Your task to perform on an android device: Open battery settings Image 0: 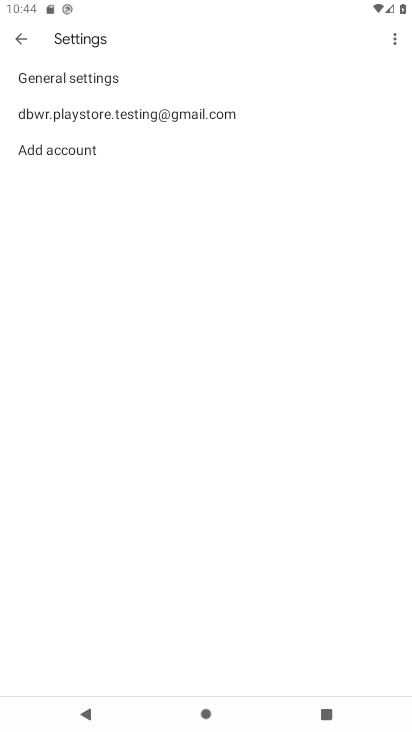
Step 0: press home button
Your task to perform on an android device: Open battery settings Image 1: 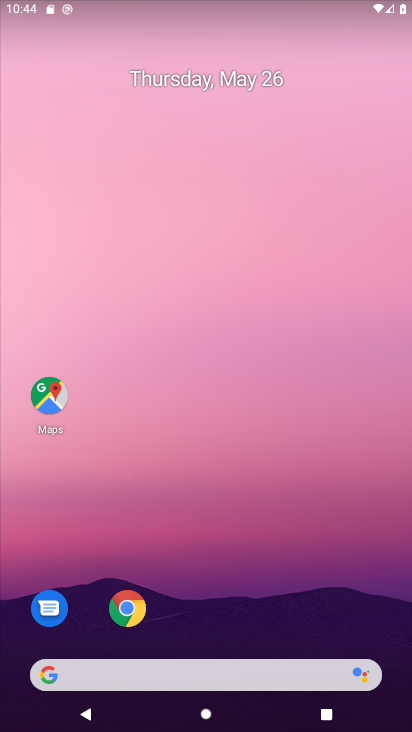
Step 1: drag from (393, 696) to (290, 118)
Your task to perform on an android device: Open battery settings Image 2: 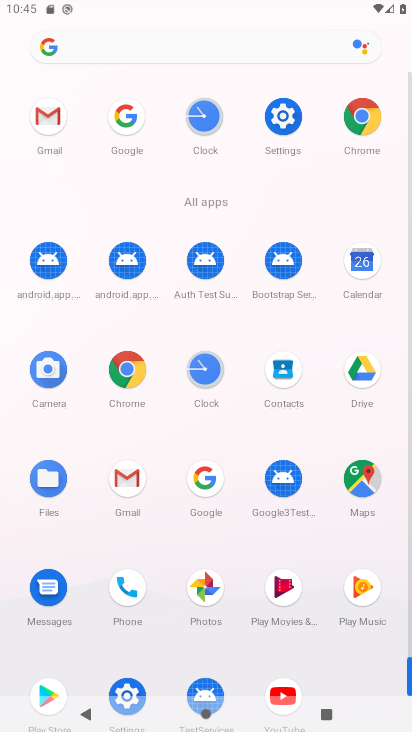
Step 2: click (276, 116)
Your task to perform on an android device: Open battery settings Image 3: 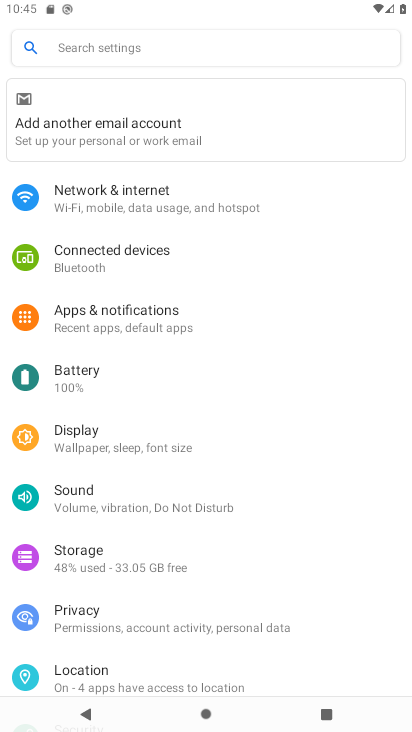
Step 3: click (75, 370)
Your task to perform on an android device: Open battery settings Image 4: 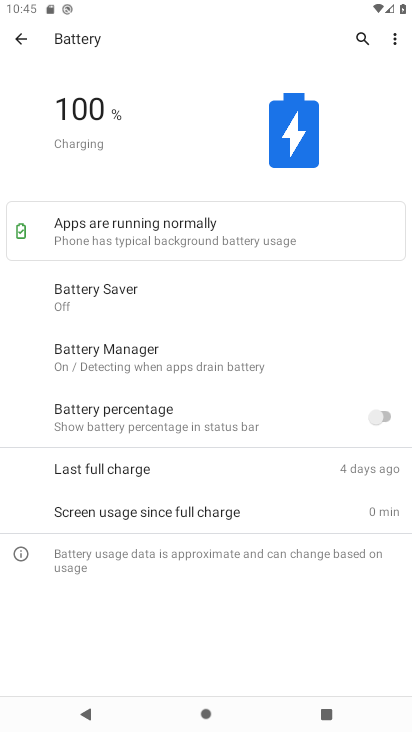
Step 4: task complete